Your task to perform on an android device: Go to battery settings Image 0: 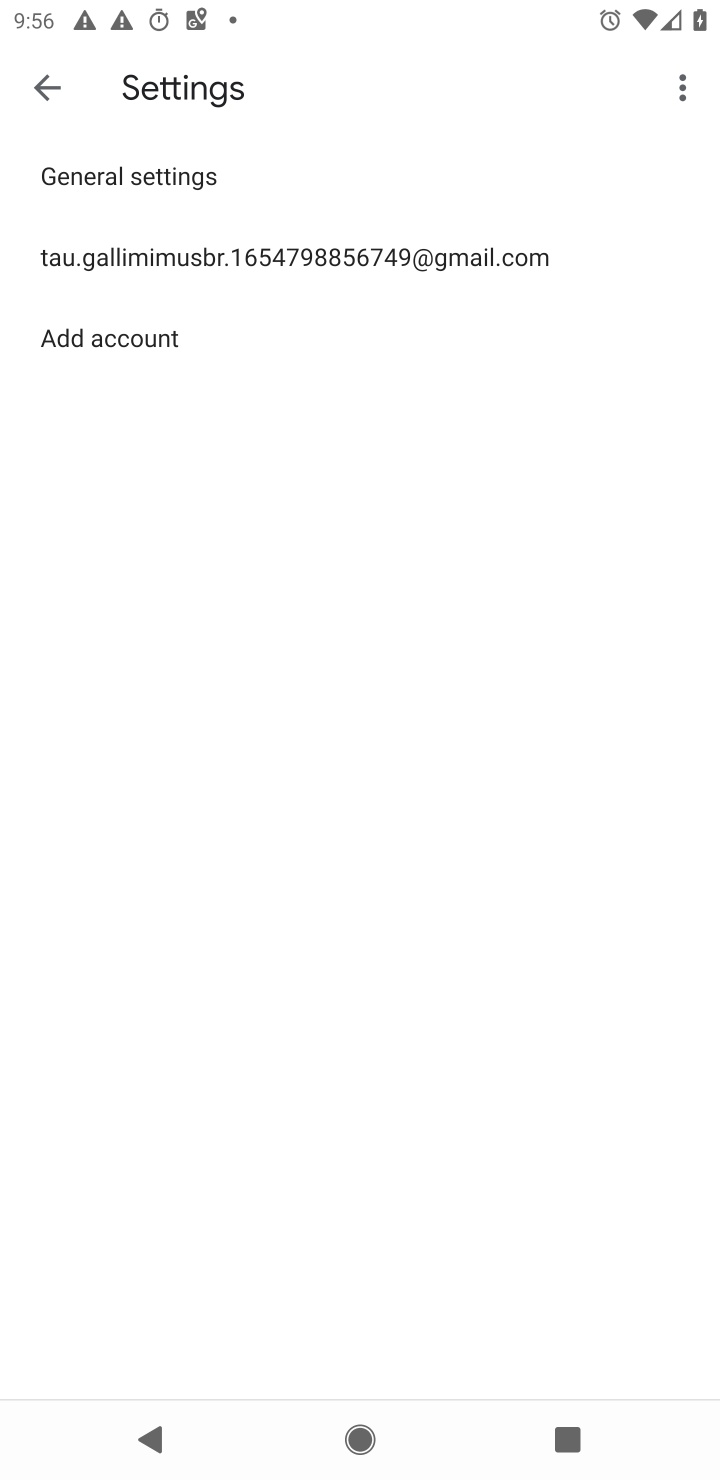
Step 0: press back button
Your task to perform on an android device: Go to battery settings Image 1: 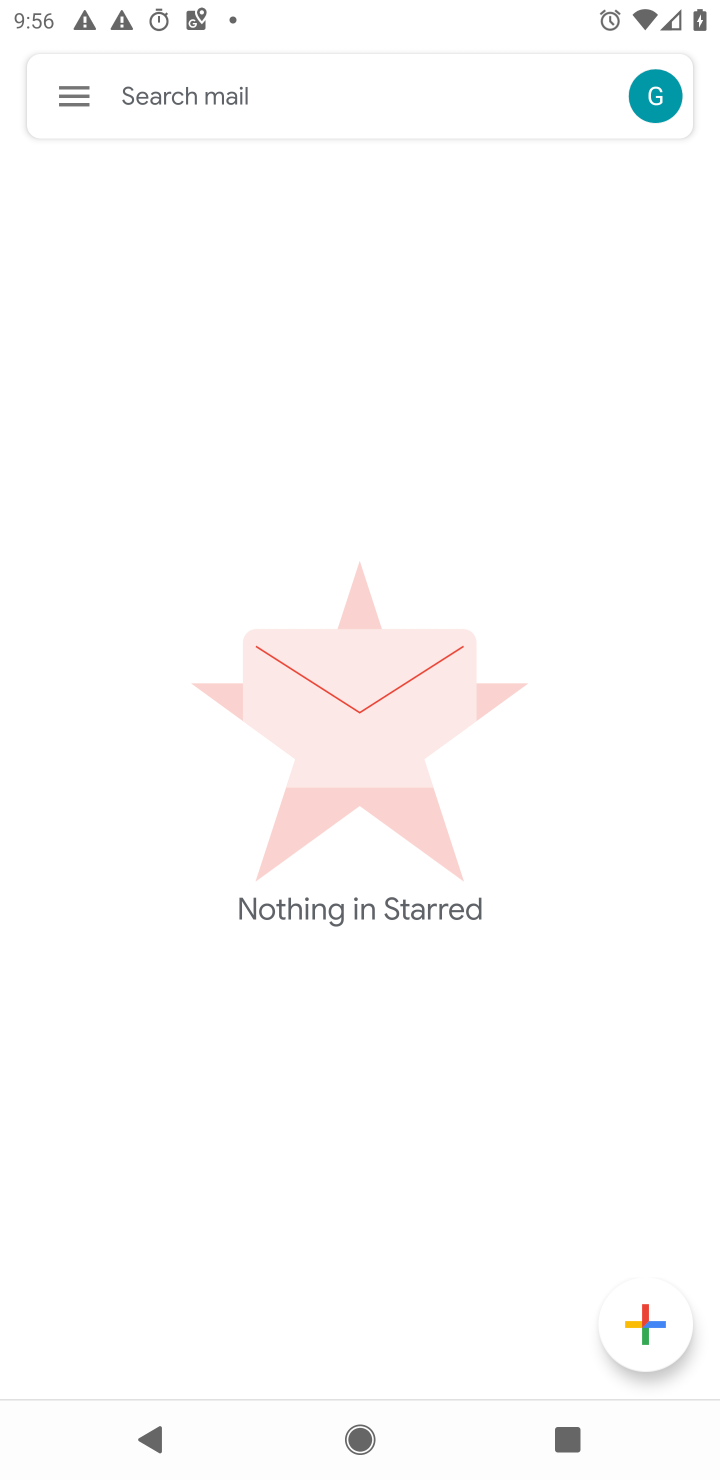
Step 1: press back button
Your task to perform on an android device: Go to battery settings Image 2: 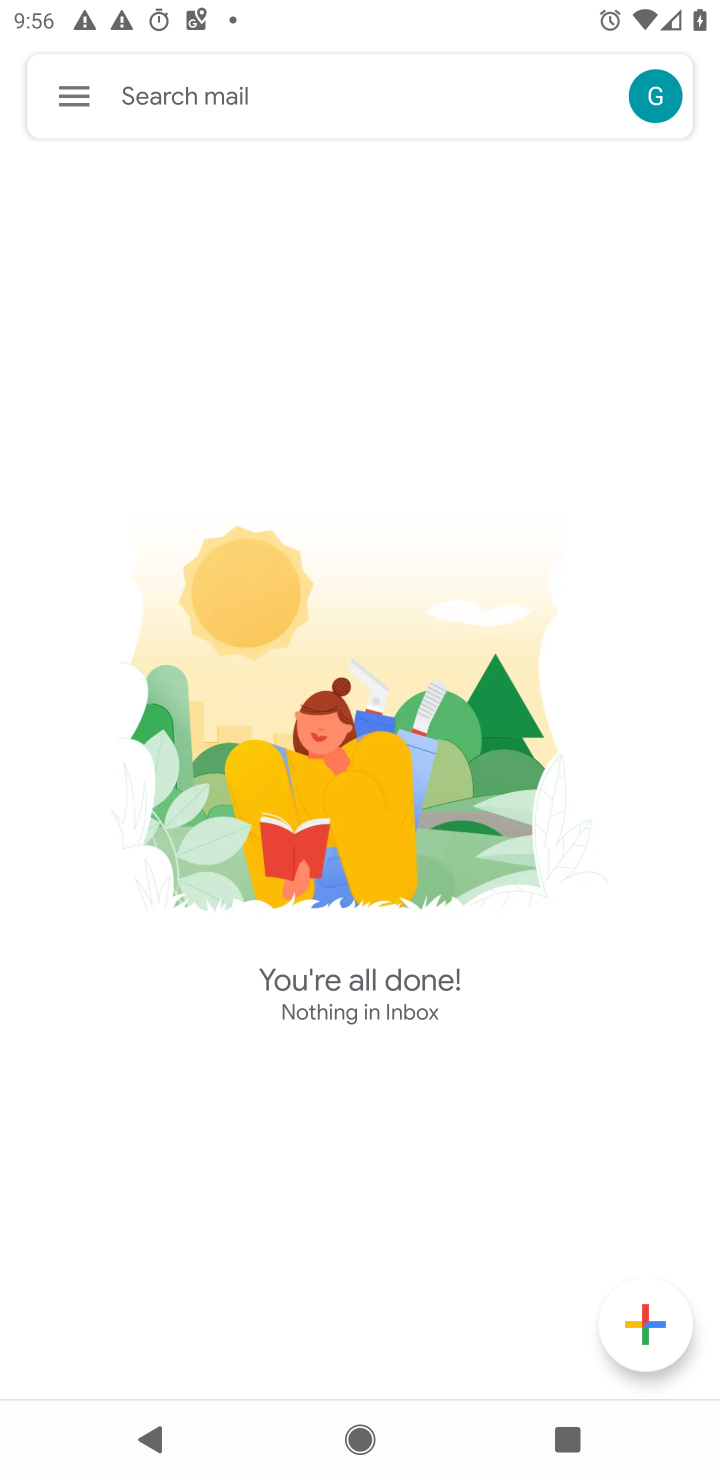
Step 2: press back button
Your task to perform on an android device: Go to battery settings Image 3: 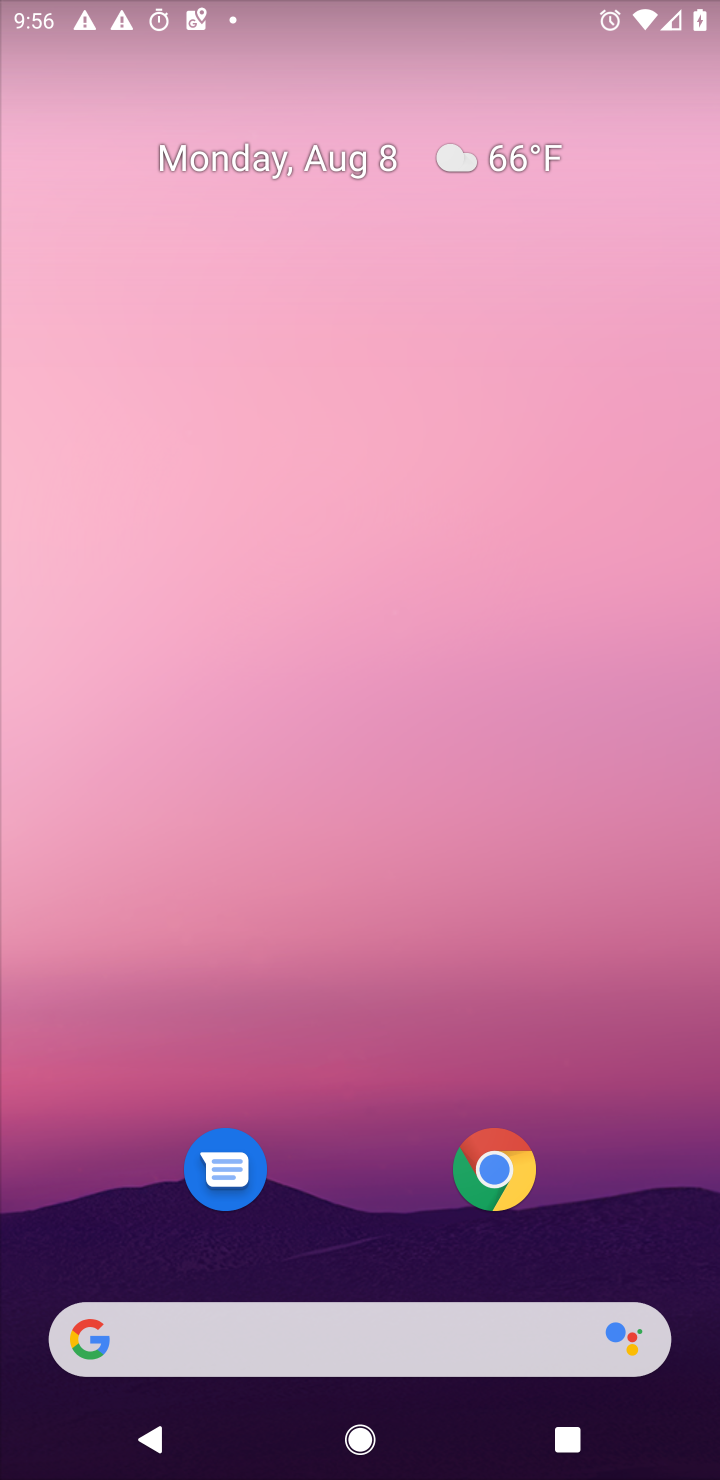
Step 3: drag from (383, 1233) to (455, 10)
Your task to perform on an android device: Go to battery settings Image 4: 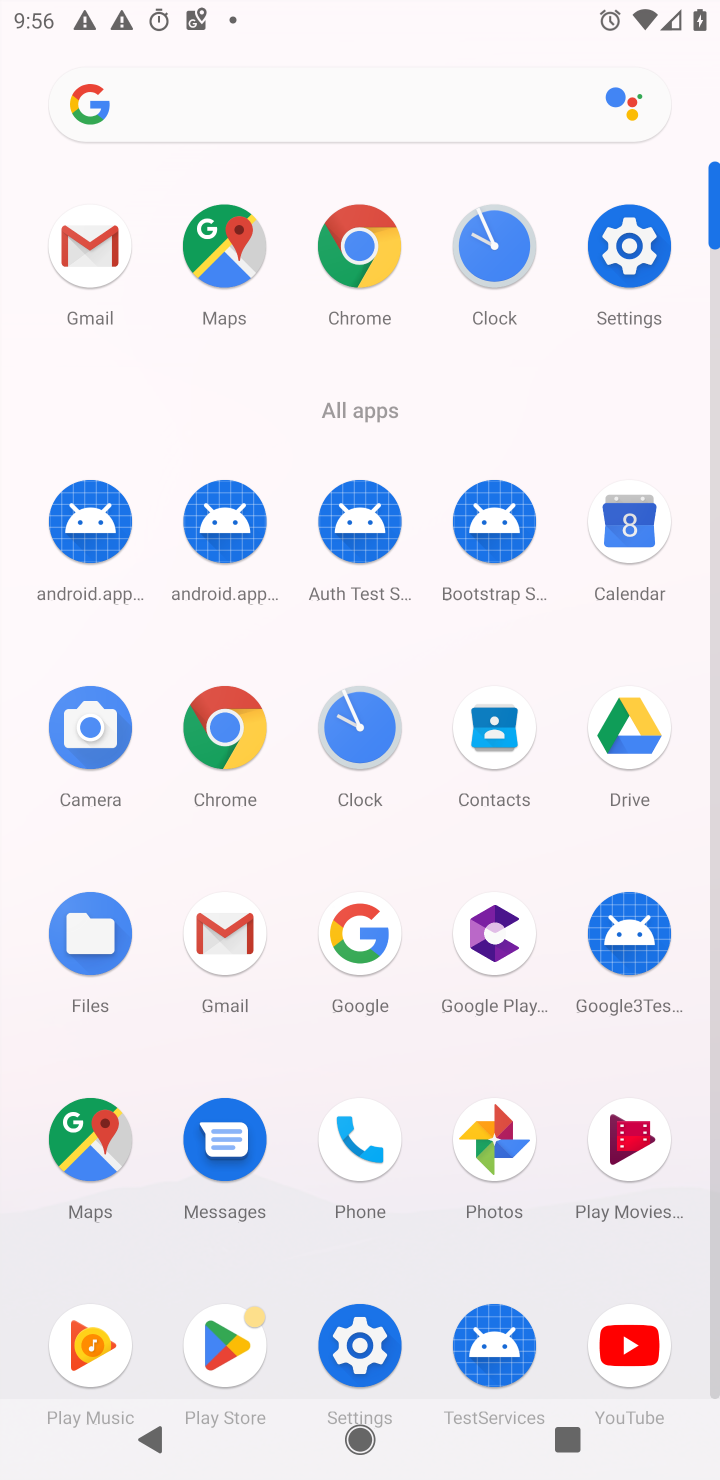
Step 4: click (638, 245)
Your task to perform on an android device: Go to battery settings Image 5: 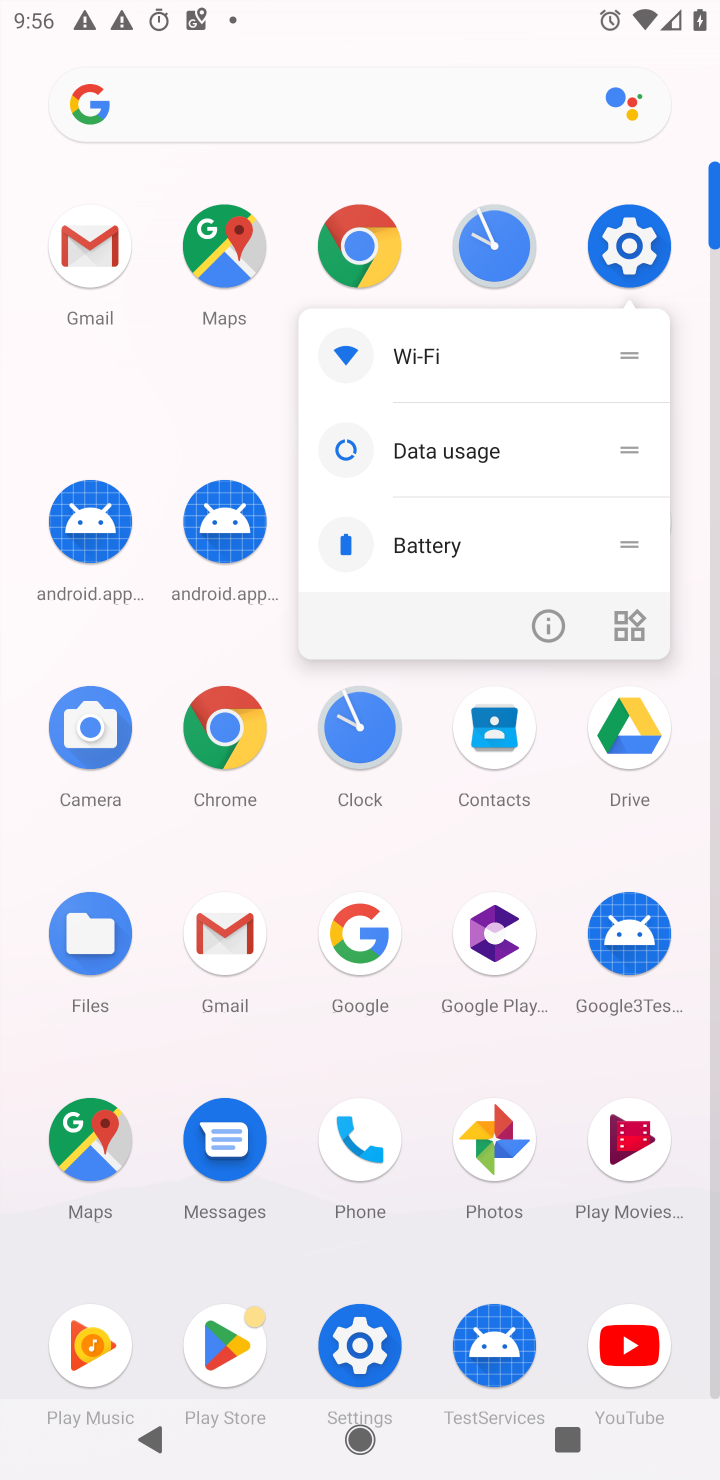
Step 5: click (617, 240)
Your task to perform on an android device: Go to battery settings Image 6: 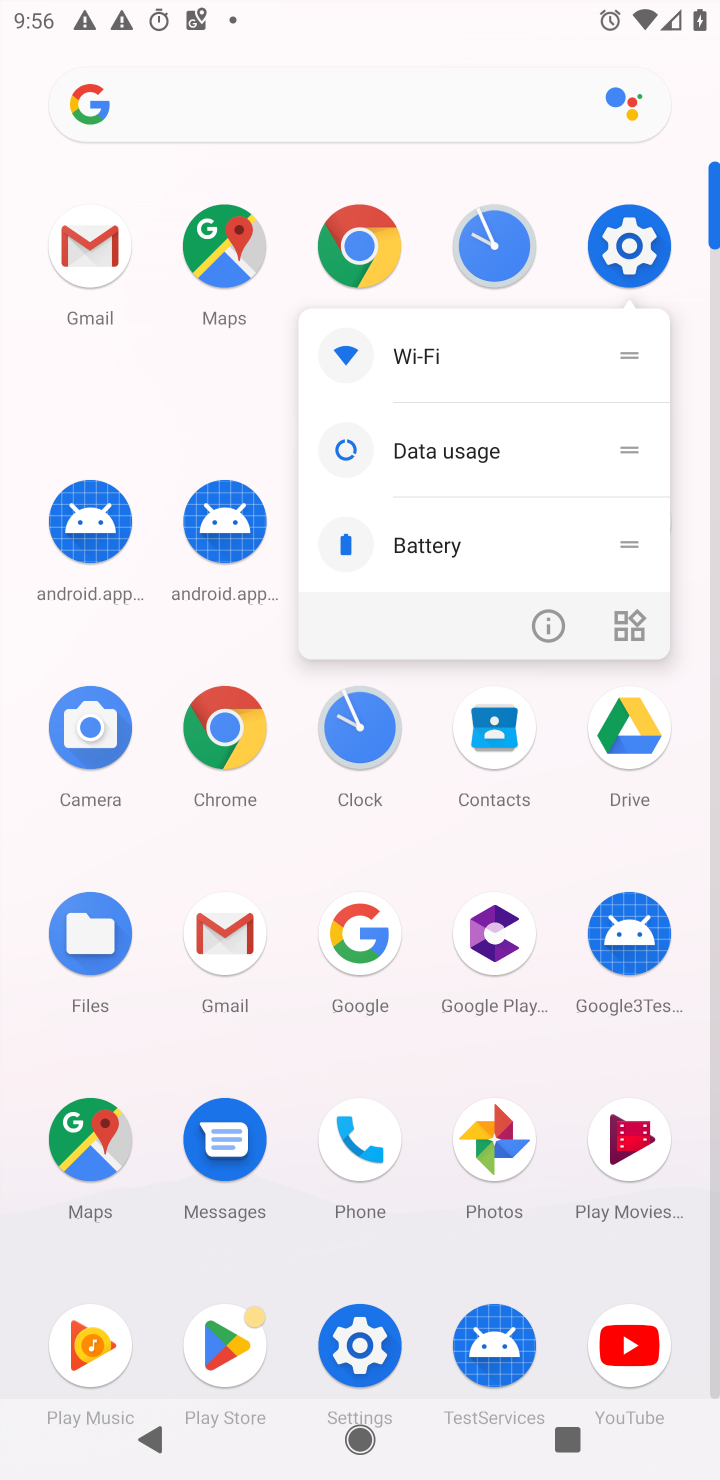
Step 6: click (619, 238)
Your task to perform on an android device: Go to battery settings Image 7: 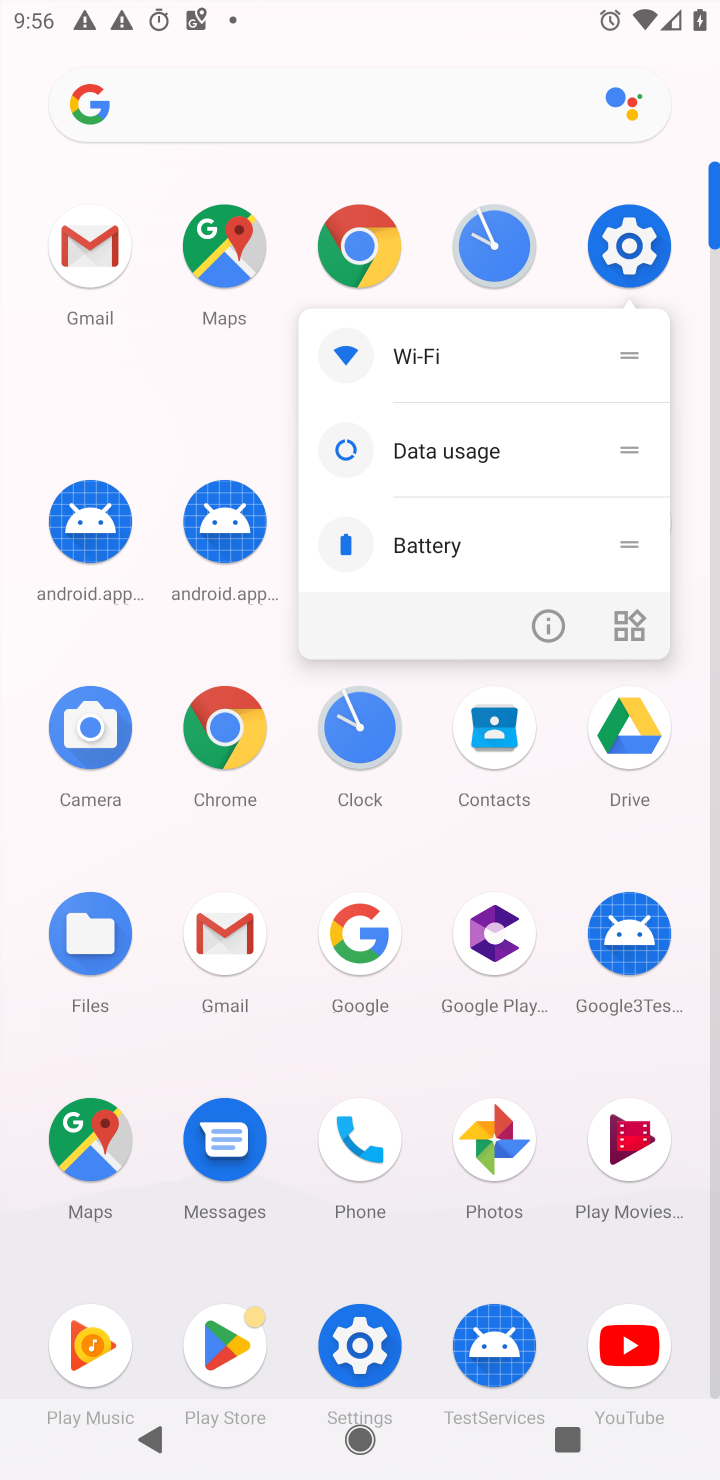
Step 7: click (634, 233)
Your task to perform on an android device: Go to battery settings Image 8: 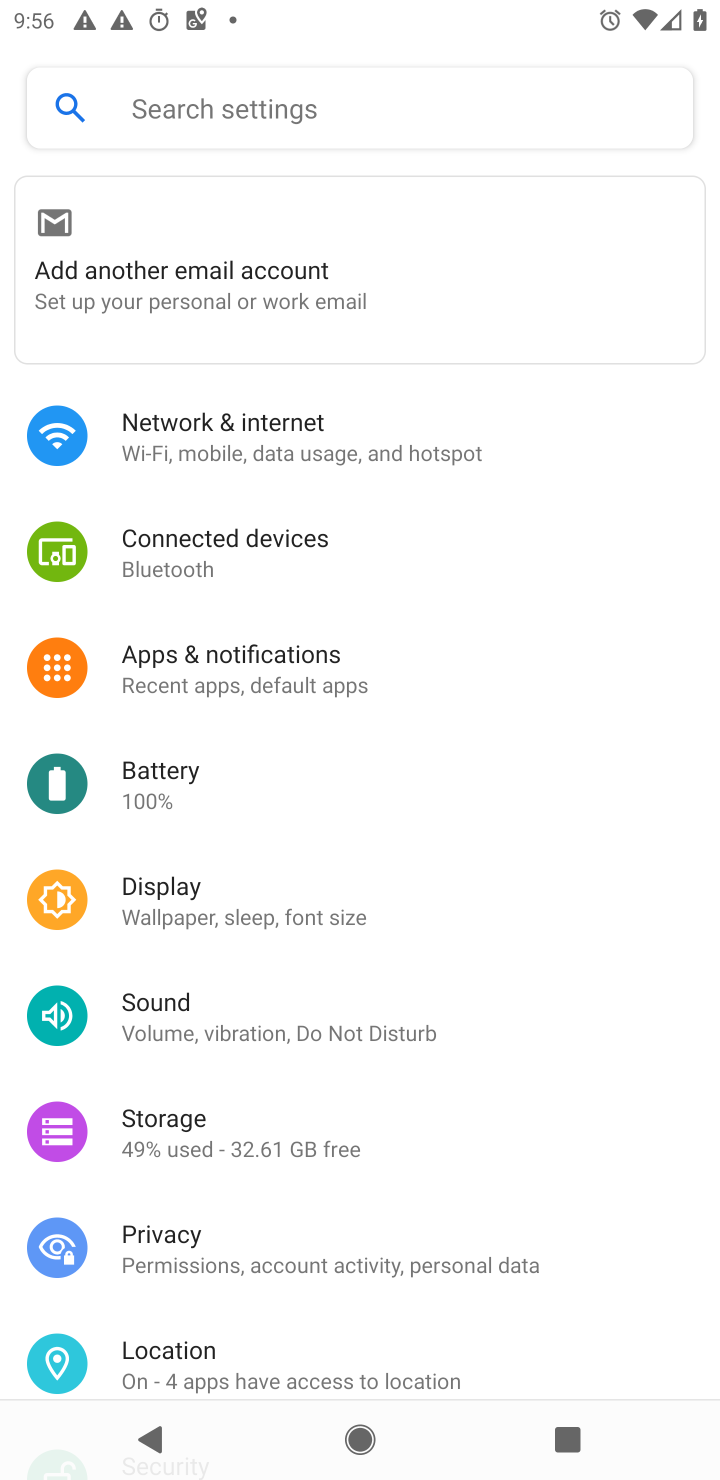
Step 8: click (169, 773)
Your task to perform on an android device: Go to battery settings Image 9: 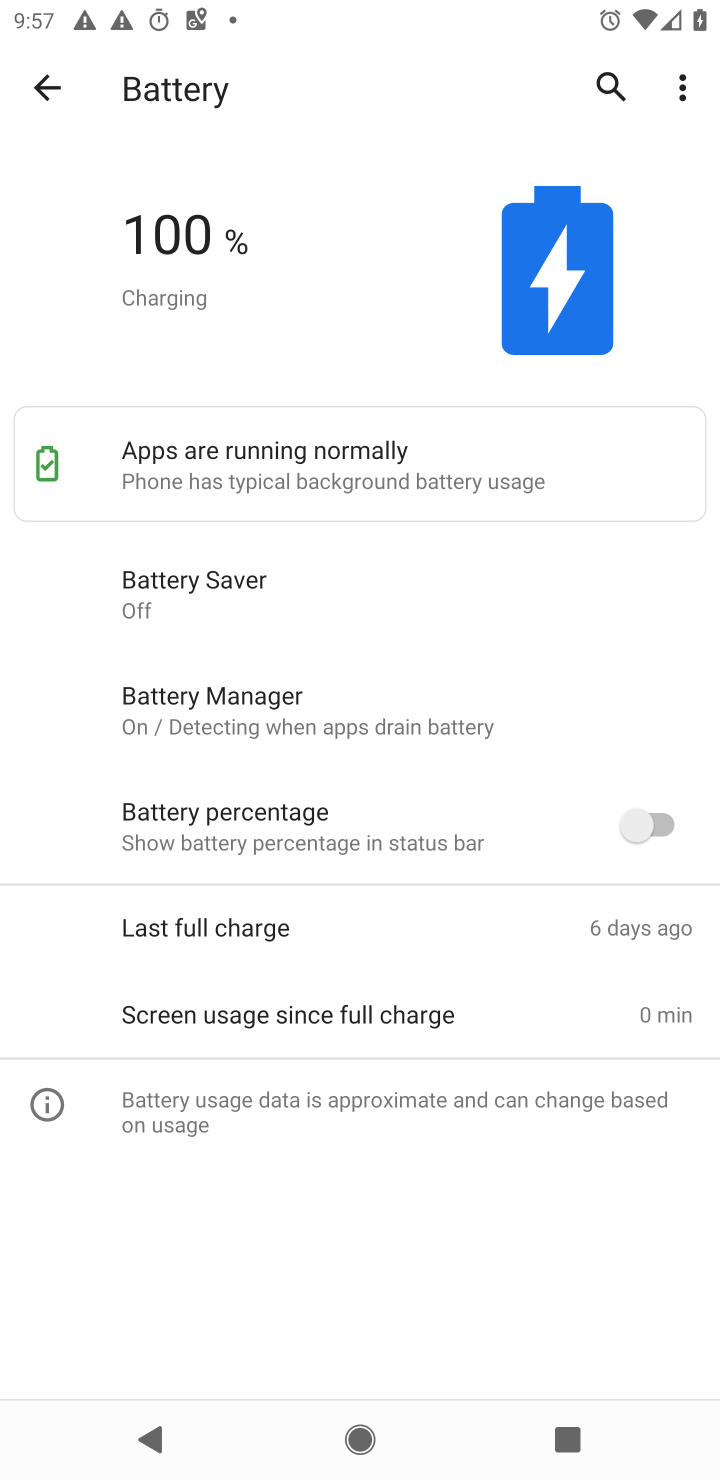
Step 9: task complete